Your task to perform on an android device: open a new tab in the chrome app Image 0: 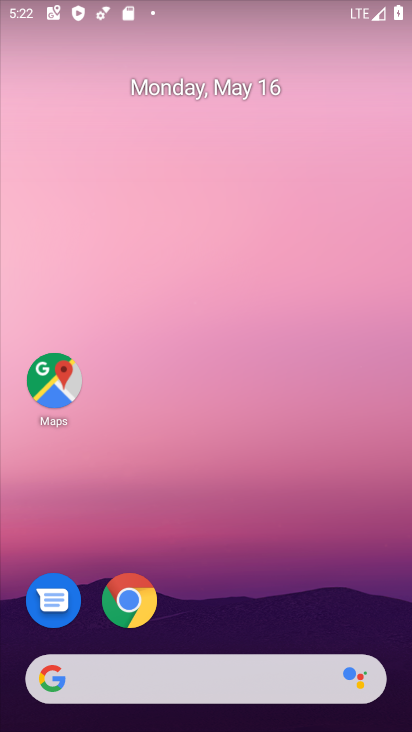
Step 0: click (121, 620)
Your task to perform on an android device: open a new tab in the chrome app Image 1: 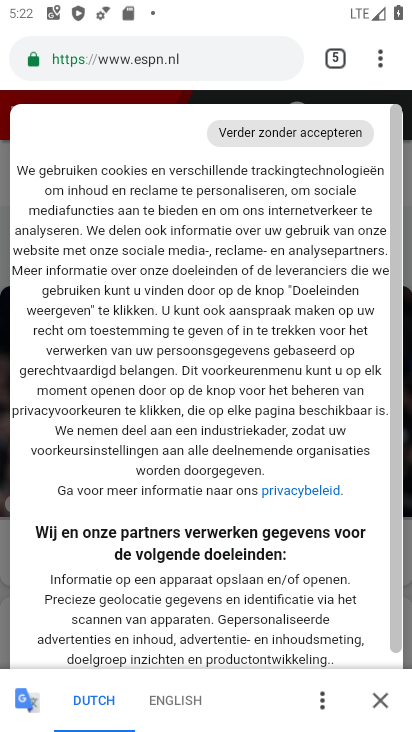
Step 1: click (337, 65)
Your task to perform on an android device: open a new tab in the chrome app Image 2: 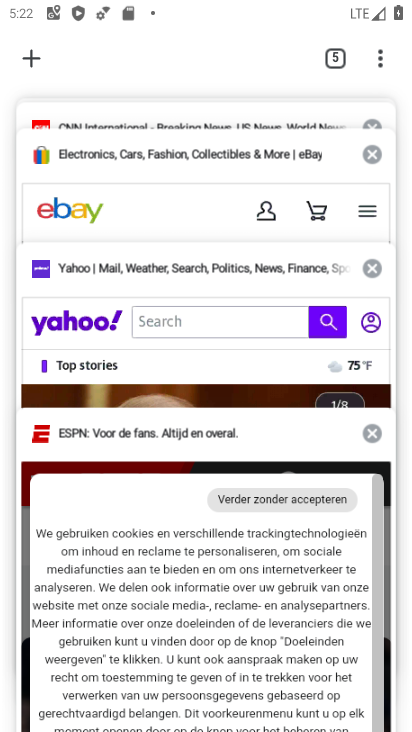
Step 2: click (21, 57)
Your task to perform on an android device: open a new tab in the chrome app Image 3: 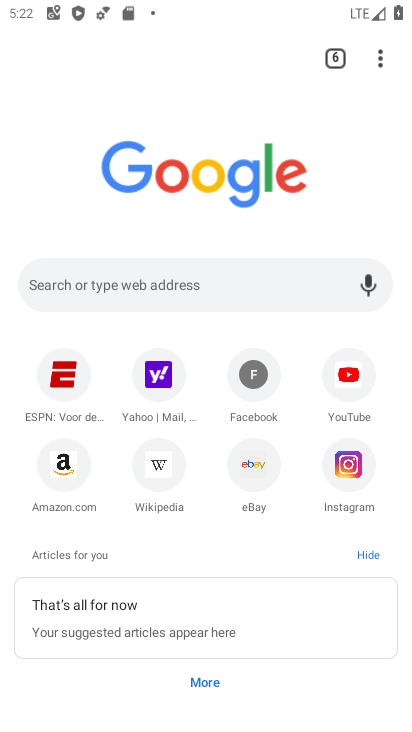
Step 3: task complete